Your task to perform on an android device: Turn on the flashlight Image 0: 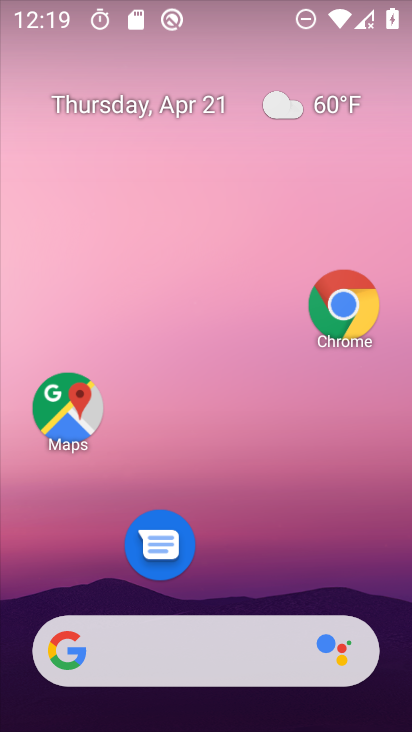
Step 0: drag from (279, 612) to (305, 156)
Your task to perform on an android device: Turn on the flashlight Image 1: 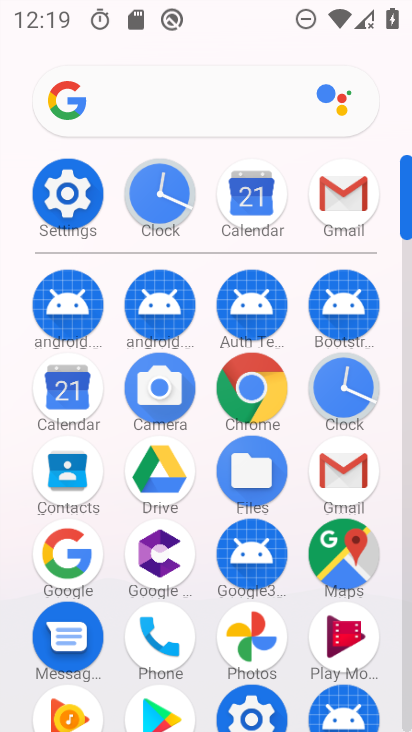
Step 1: task complete